Your task to perform on an android device: Open Google Chrome Image 0: 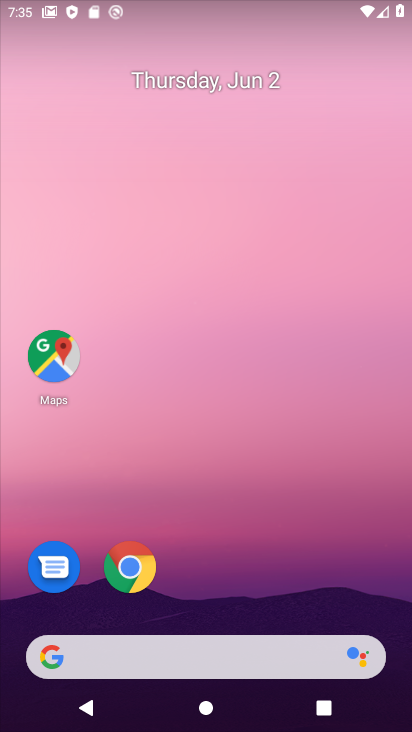
Step 0: click (129, 565)
Your task to perform on an android device: Open Google Chrome Image 1: 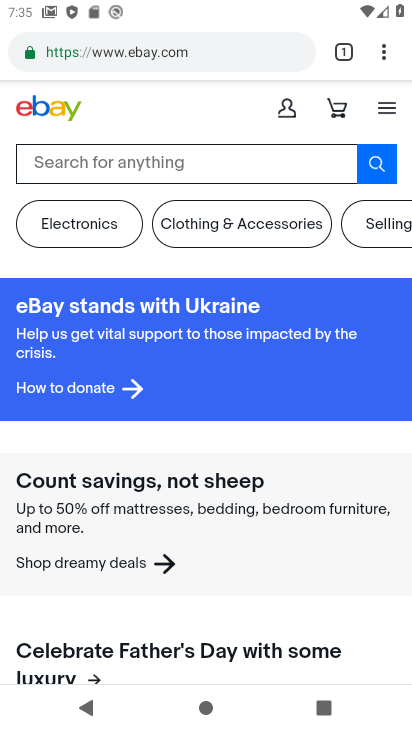
Step 1: task complete